Your task to perform on an android device: Go to Yahoo.com Image 0: 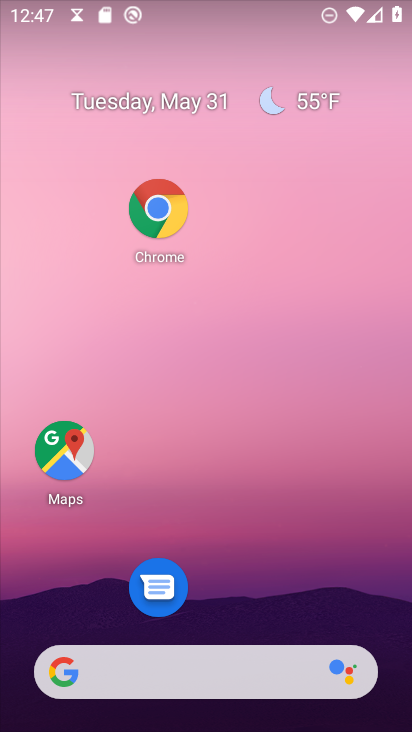
Step 0: click (171, 210)
Your task to perform on an android device: Go to Yahoo.com Image 1: 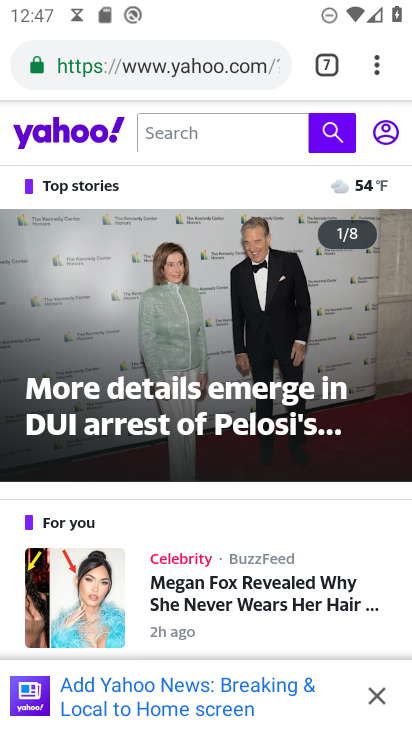
Step 1: task complete